Your task to perform on an android device: What's the weather? Image 0: 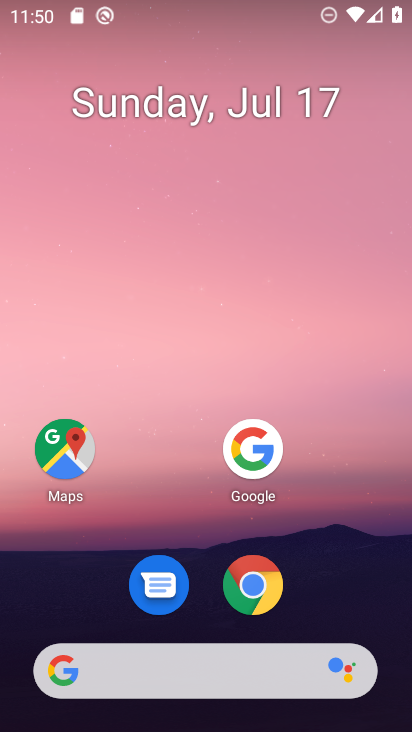
Step 0: press home button
Your task to perform on an android device: What's the weather? Image 1: 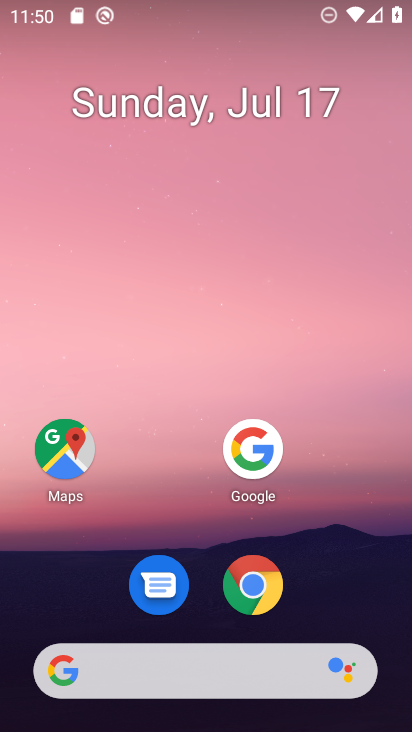
Step 1: click (409, 600)
Your task to perform on an android device: What's the weather? Image 2: 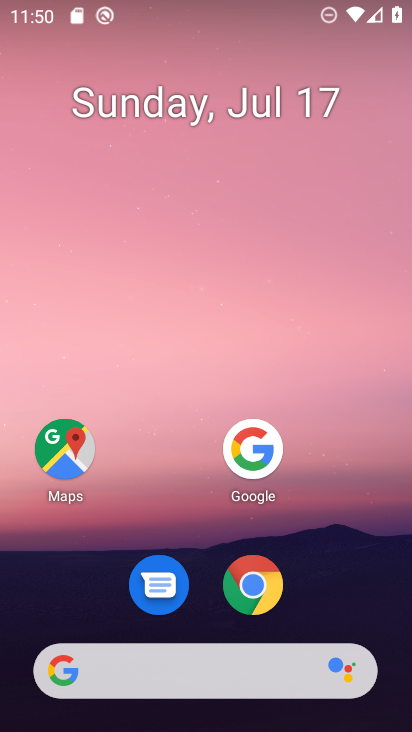
Step 2: click (181, 668)
Your task to perform on an android device: What's the weather? Image 3: 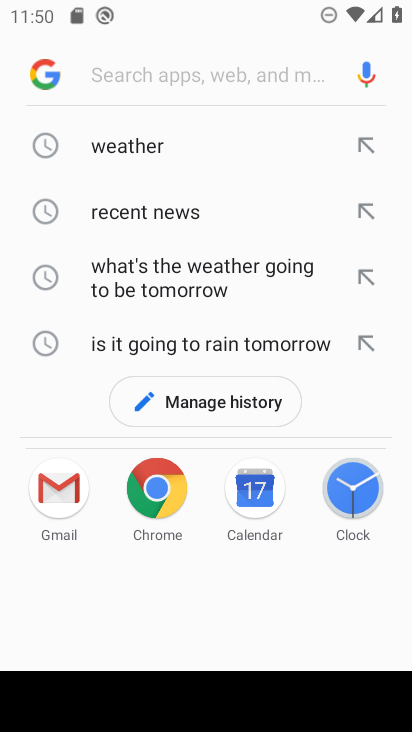
Step 3: click (148, 145)
Your task to perform on an android device: What's the weather? Image 4: 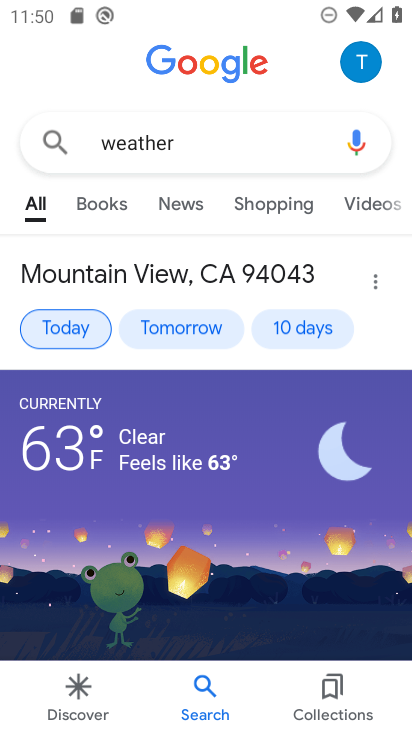
Step 4: task complete